Your task to perform on an android device: Check the news Image 0: 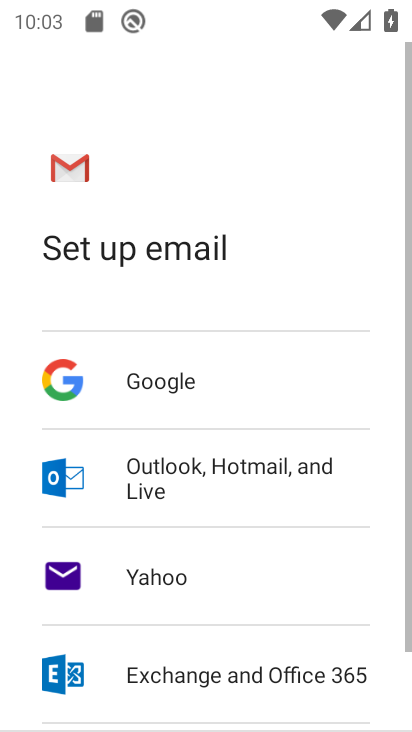
Step 0: press home button
Your task to perform on an android device: Check the news Image 1: 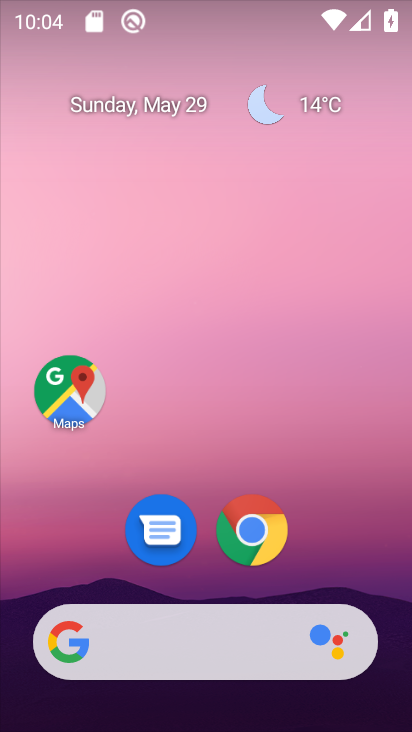
Step 1: task complete